Your task to perform on an android device: turn off location Image 0: 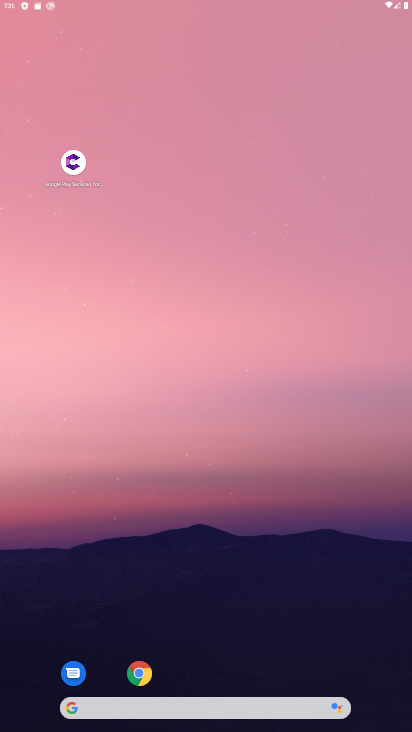
Step 0: drag from (166, 623) to (239, 131)
Your task to perform on an android device: turn off location Image 1: 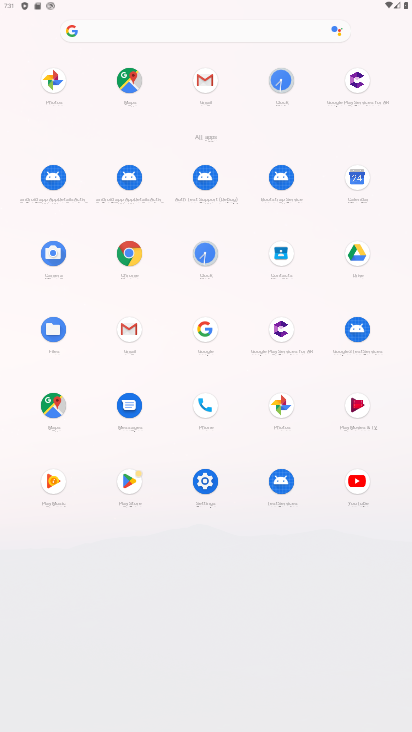
Step 1: click (210, 486)
Your task to perform on an android device: turn off location Image 2: 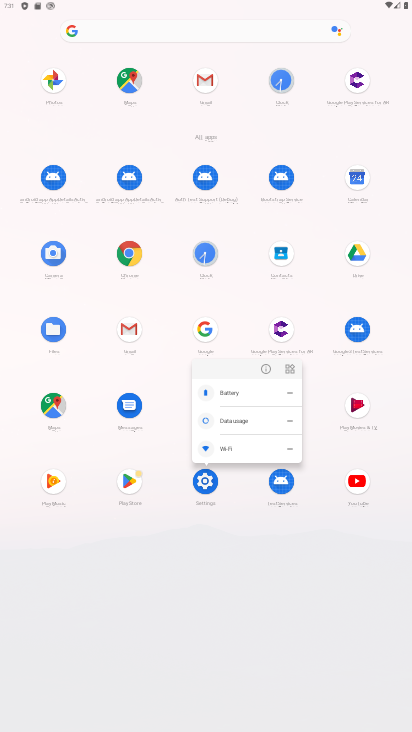
Step 2: click (267, 368)
Your task to perform on an android device: turn off location Image 3: 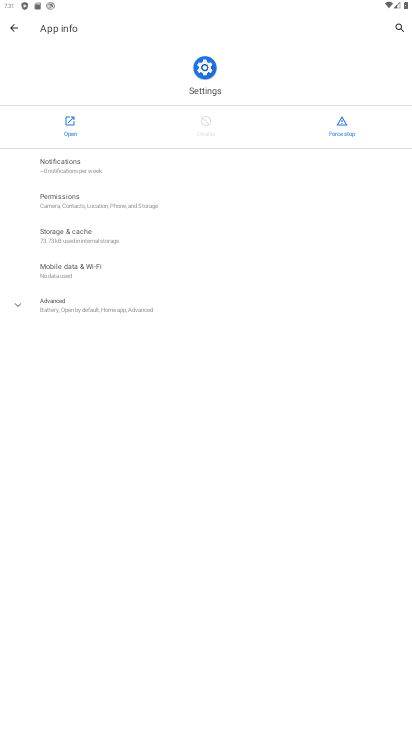
Step 3: click (69, 125)
Your task to perform on an android device: turn off location Image 4: 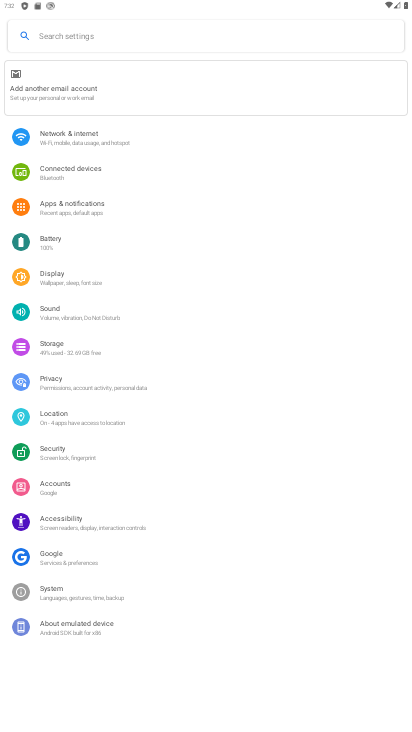
Step 4: click (65, 414)
Your task to perform on an android device: turn off location Image 5: 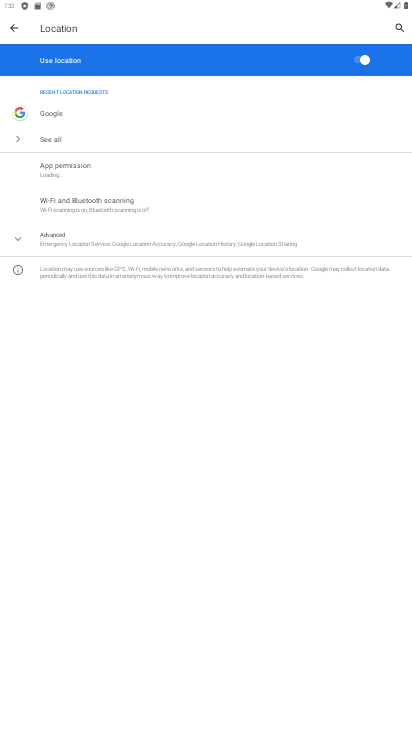
Step 5: click (361, 56)
Your task to perform on an android device: turn off location Image 6: 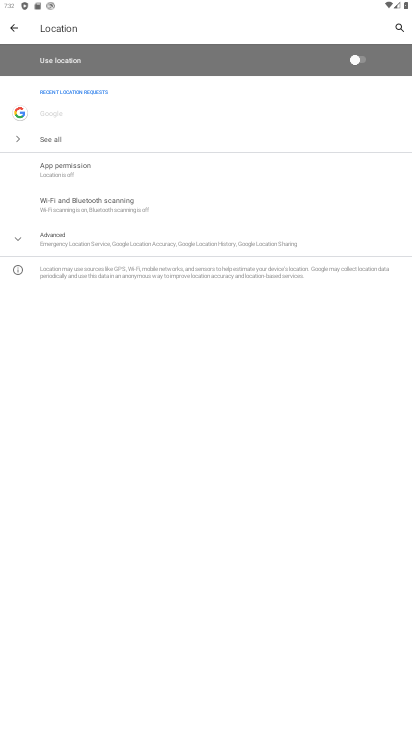
Step 6: task complete